Your task to perform on an android device: Go to Yahoo.com Image 0: 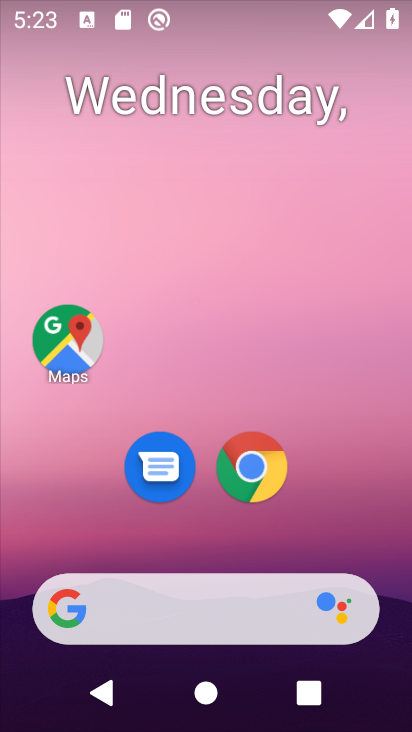
Step 0: click (245, 469)
Your task to perform on an android device: Go to Yahoo.com Image 1: 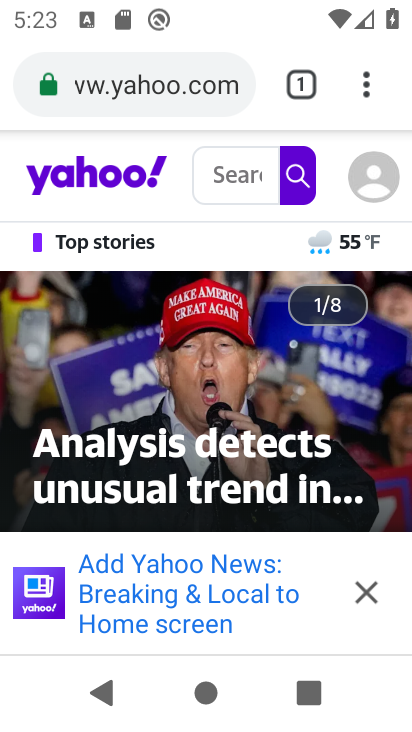
Step 1: task complete